Your task to perform on an android device: open the mobile data screen to see how much data has been used Image 0: 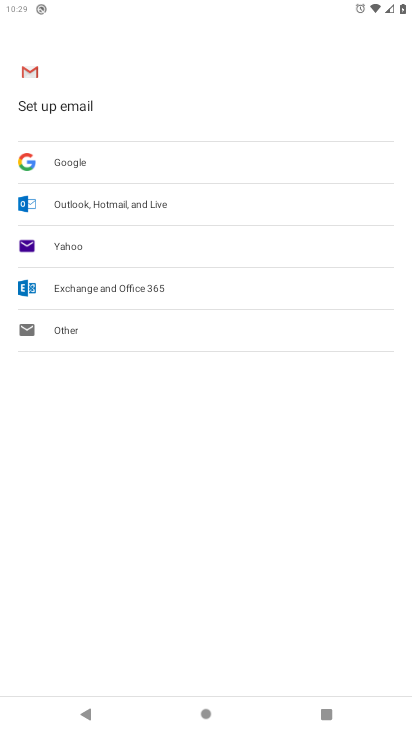
Step 0: press home button
Your task to perform on an android device: open the mobile data screen to see how much data has been used Image 1: 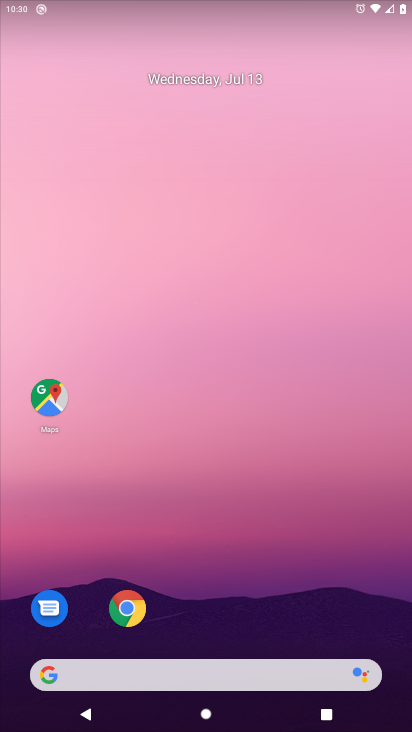
Step 1: drag from (39, 697) to (154, 134)
Your task to perform on an android device: open the mobile data screen to see how much data has been used Image 2: 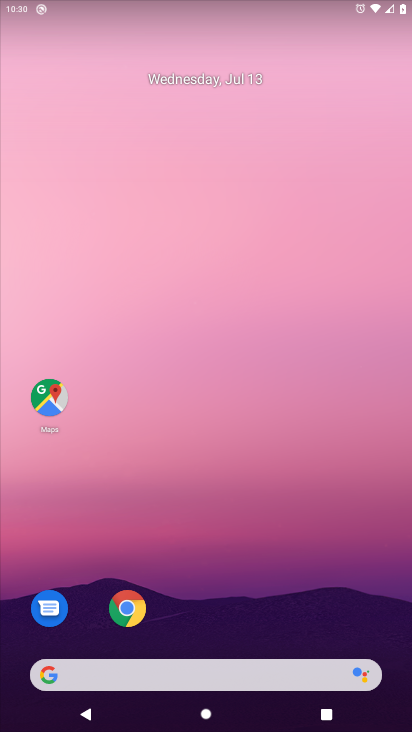
Step 2: drag from (42, 707) to (178, 79)
Your task to perform on an android device: open the mobile data screen to see how much data has been used Image 3: 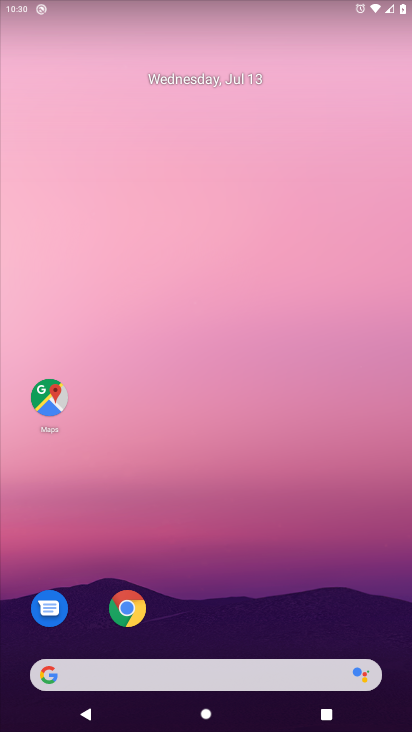
Step 3: drag from (60, 696) to (216, 74)
Your task to perform on an android device: open the mobile data screen to see how much data has been used Image 4: 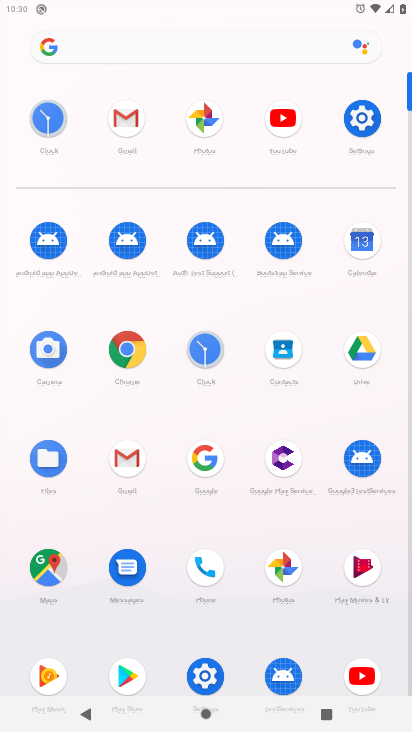
Step 4: click (211, 666)
Your task to perform on an android device: open the mobile data screen to see how much data has been used Image 5: 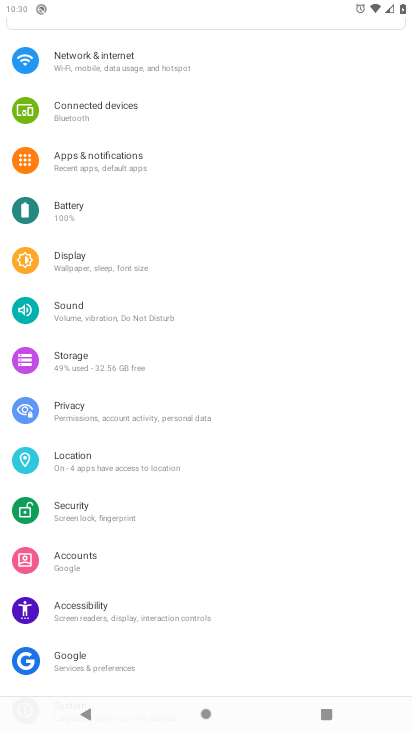
Step 5: click (94, 83)
Your task to perform on an android device: open the mobile data screen to see how much data has been used Image 6: 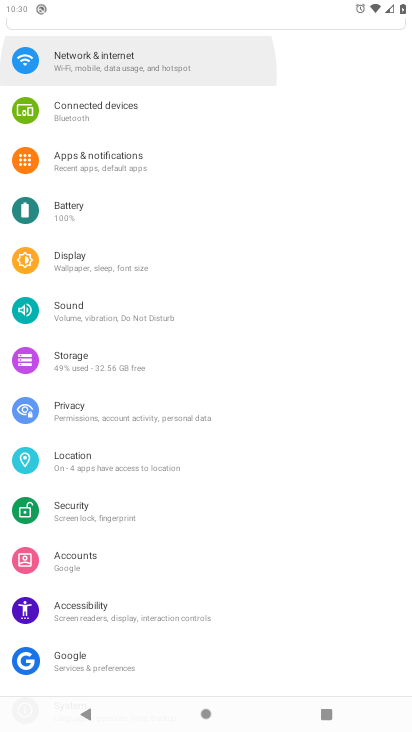
Step 6: click (97, 58)
Your task to perform on an android device: open the mobile data screen to see how much data has been used Image 7: 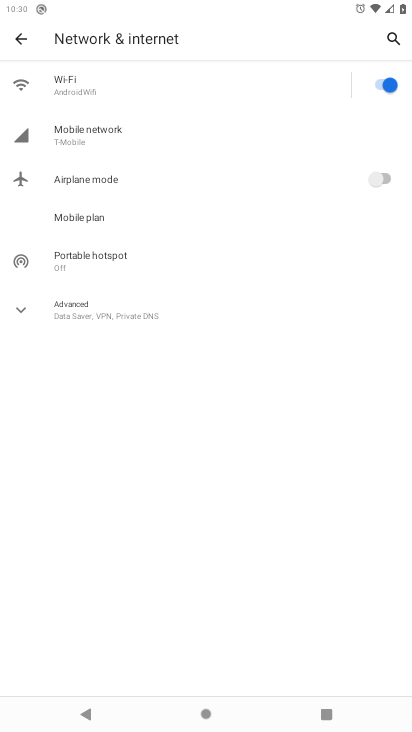
Step 7: click (102, 127)
Your task to perform on an android device: open the mobile data screen to see how much data has been used Image 8: 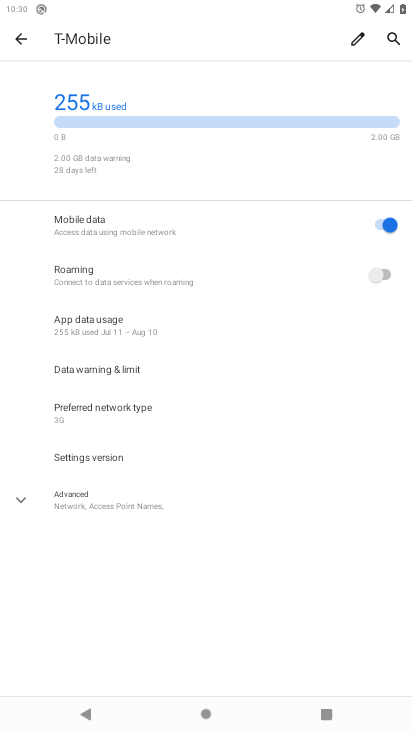
Step 8: task complete